Your task to perform on an android device: Open Wikipedia Image 0: 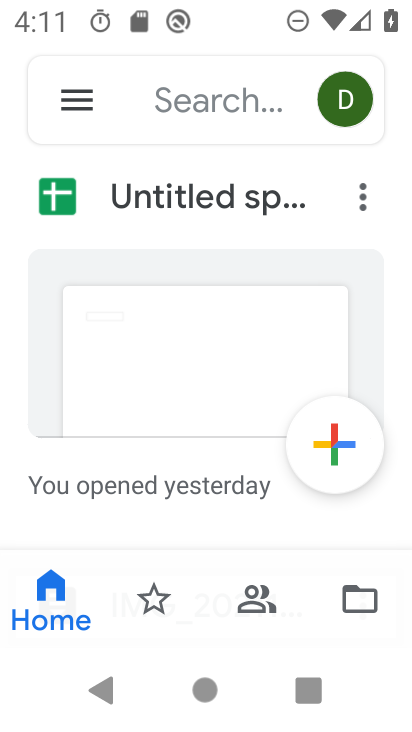
Step 0: press home button
Your task to perform on an android device: Open Wikipedia Image 1: 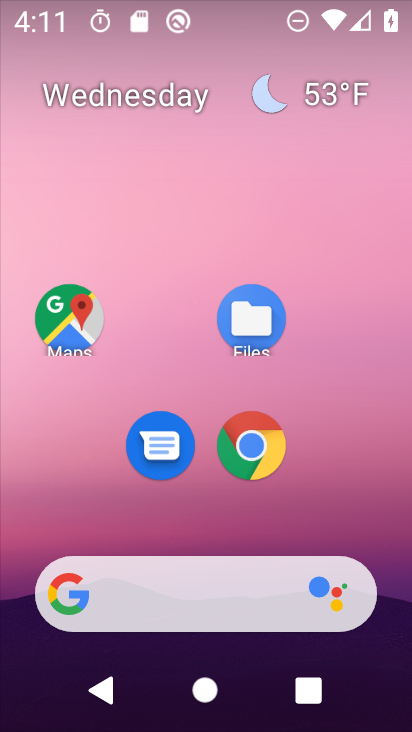
Step 1: click (269, 460)
Your task to perform on an android device: Open Wikipedia Image 2: 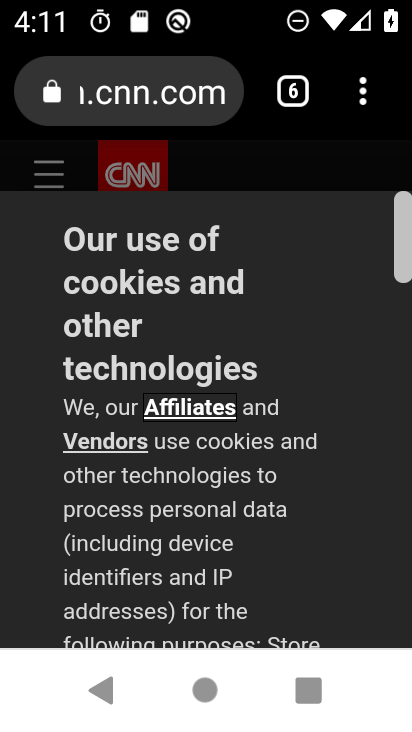
Step 2: click (286, 103)
Your task to perform on an android device: Open Wikipedia Image 3: 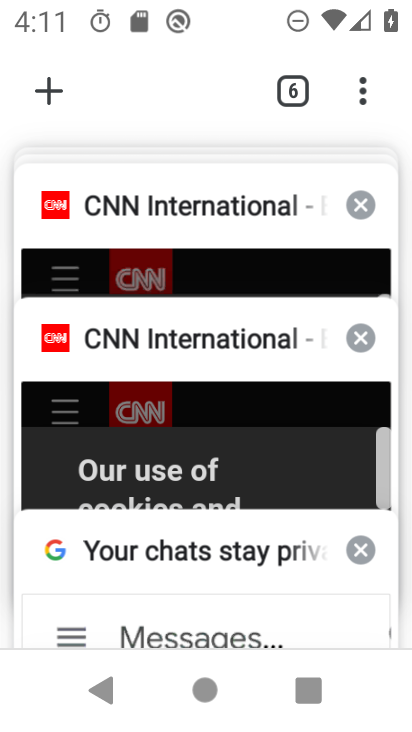
Step 3: drag from (202, 247) to (211, 313)
Your task to perform on an android device: Open Wikipedia Image 4: 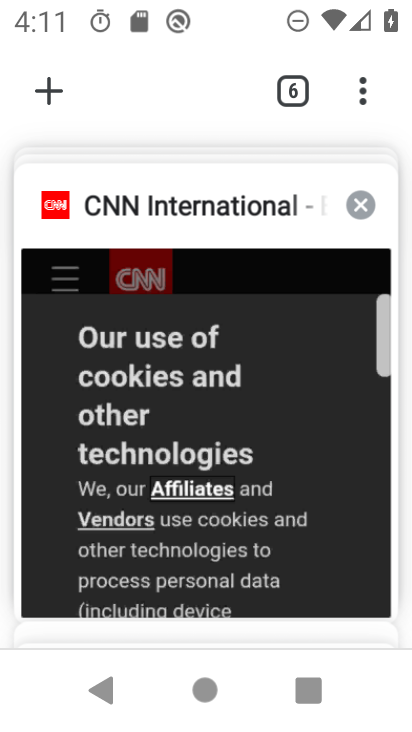
Step 4: drag from (223, 247) to (235, 503)
Your task to perform on an android device: Open Wikipedia Image 5: 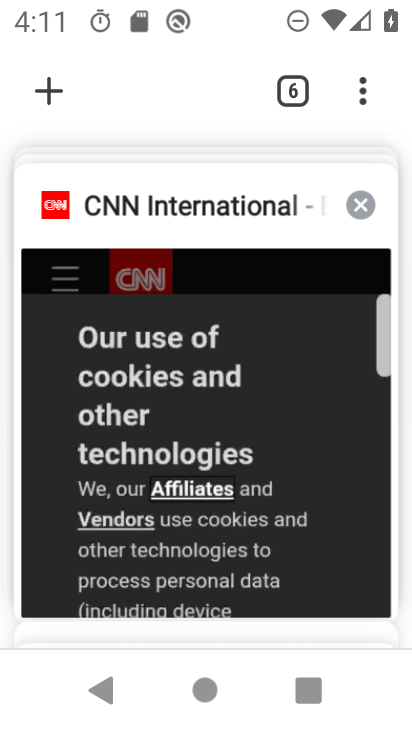
Step 5: click (255, 367)
Your task to perform on an android device: Open Wikipedia Image 6: 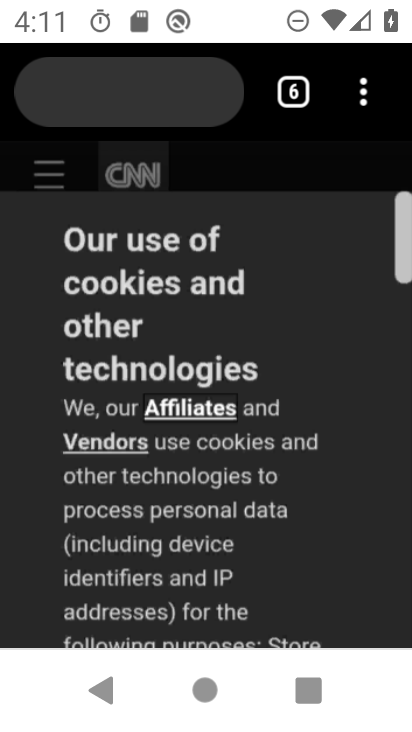
Step 6: drag from (255, 367) to (228, 486)
Your task to perform on an android device: Open Wikipedia Image 7: 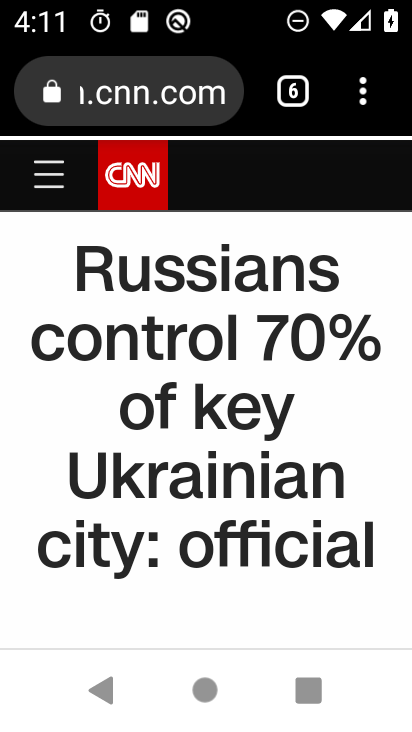
Step 7: click (299, 101)
Your task to perform on an android device: Open Wikipedia Image 8: 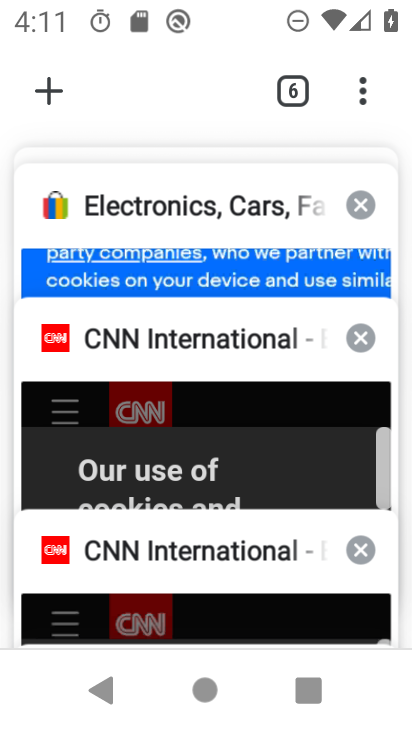
Step 8: drag from (172, 213) to (203, 649)
Your task to perform on an android device: Open Wikipedia Image 9: 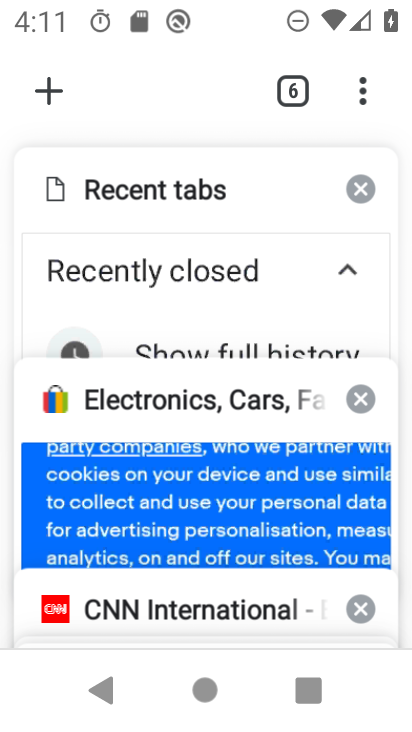
Step 9: drag from (200, 199) to (187, 572)
Your task to perform on an android device: Open Wikipedia Image 10: 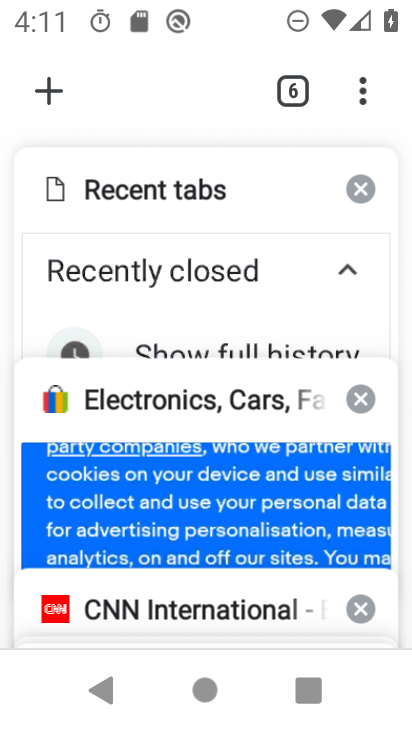
Step 10: drag from (233, 515) to (284, 94)
Your task to perform on an android device: Open Wikipedia Image 11: 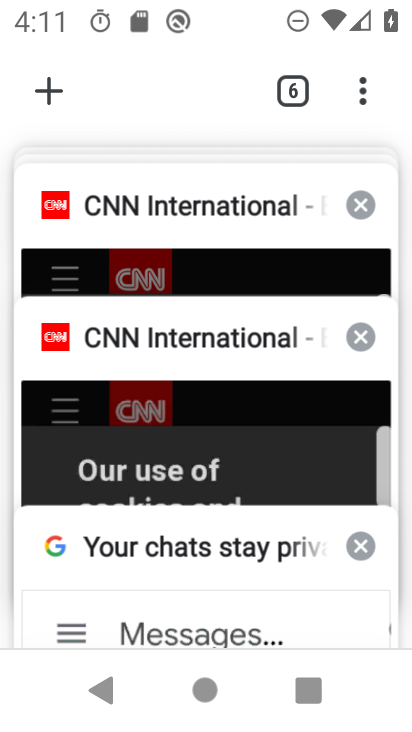
Step 11: drag from (254, 539) to (294, 188)
Your task to perform on an android device: Open Wikipedia Image 12: 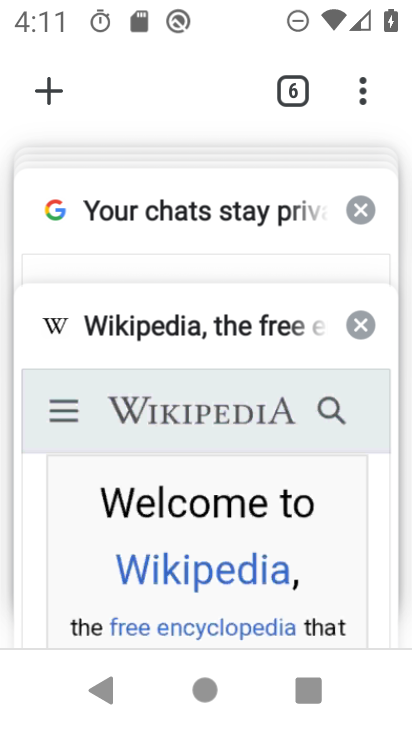
Step 12: drag from (248, 579) to (261, 329)
Your task to perform on an android device: Open Wikipedia Image 13: 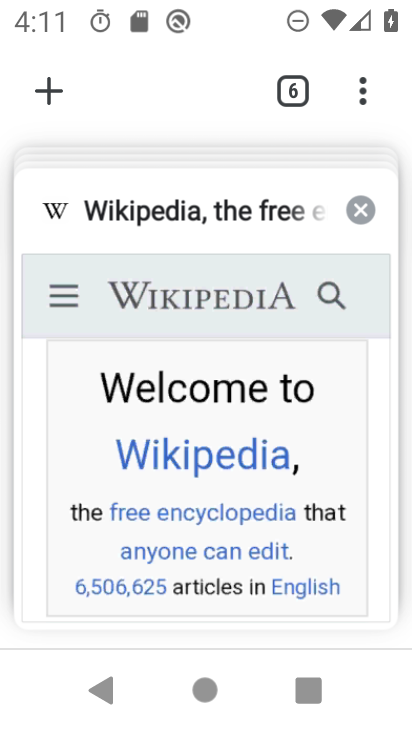
Step 13: click (259, 347)
Your task to perform on an android device: Open Wikipedia Image 14: 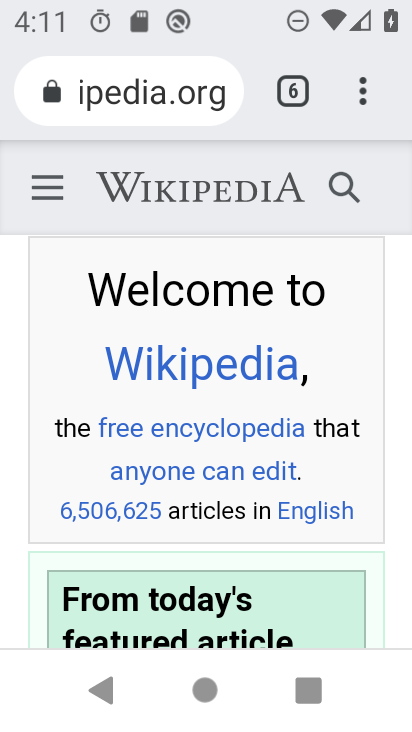
Step 14: task complete